Your task to perform on an android device: toggle notification dots Image 0: 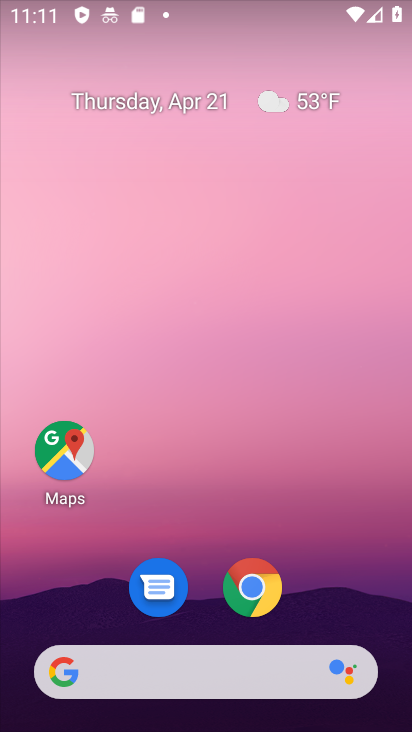
Step 0: drag from (221, 664) to (221, 117)
Your task to perform on an android device: toggle notification dots Image 1: 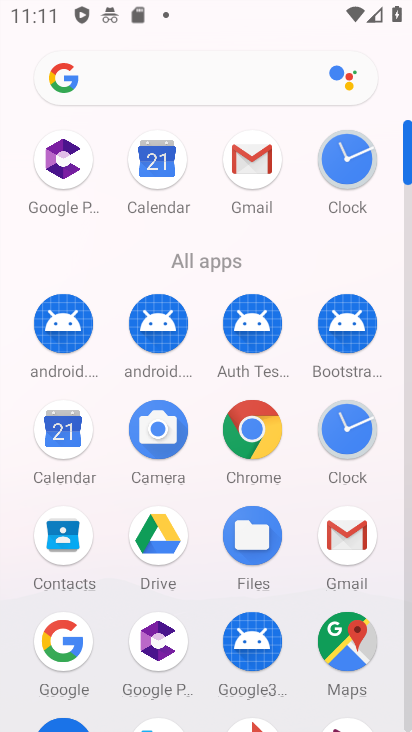
Step 1: drag from (209, 623) to (196, 286)
Your task to perform on an android device: toggle notification dots Image 2: 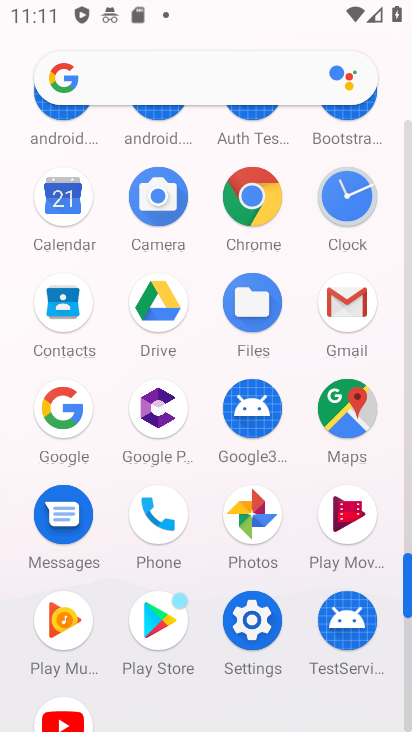
Step 2: click (248, 622)
Your task to perform on an android device: toggle notification dots Image 3: 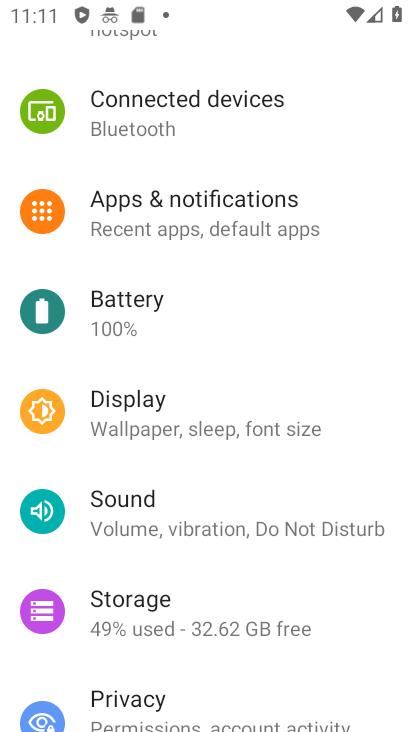
Step 3: click (195, 207)
Your task to perform on an android device: toggle notification dots Image 4: 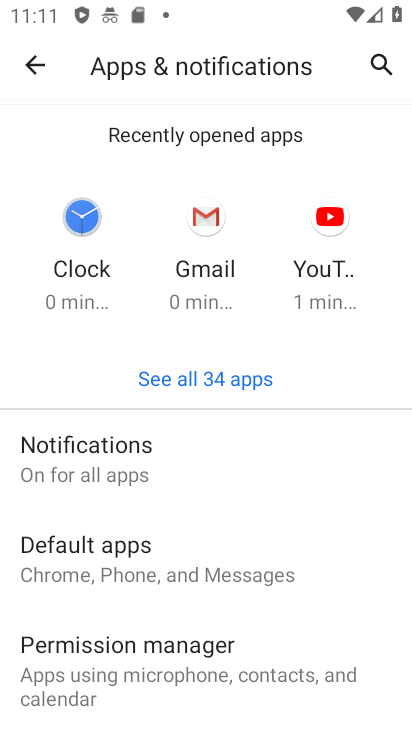
Step 4: click (90, 462)
Your task to perform on an android device: toggle notification dots Image 5: 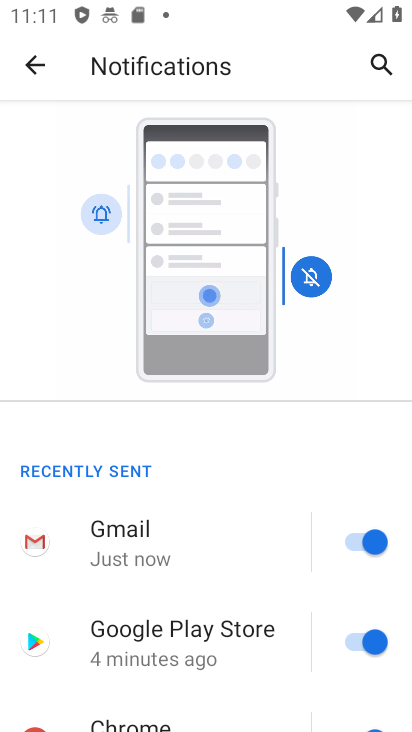
Step 5: drag from (237, 695) to (212, 282)
Your task to perform on an android device: toggle notification dots Image 6: 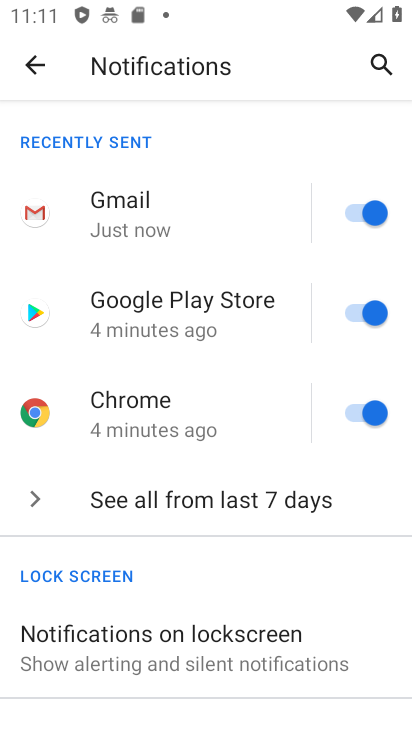
Step 6: drag from (233, 703) to (217, 289)
Your task to perform on an android device: toggle notification dots Image 7: 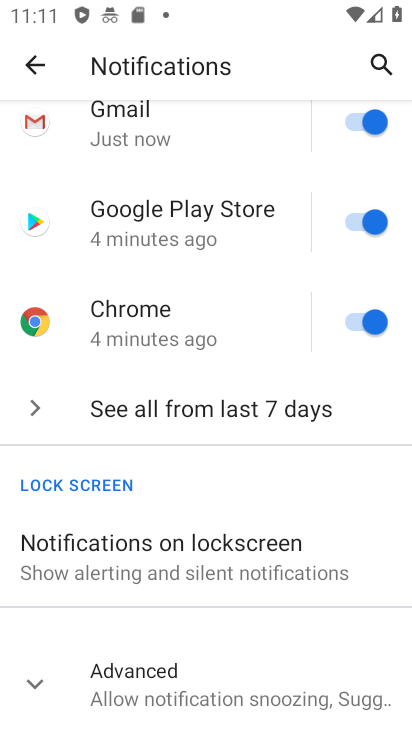
Step 7: drag from (247, 651) to (222, 239)
Your task to perform on an android device: toggle notification dots Image 8: 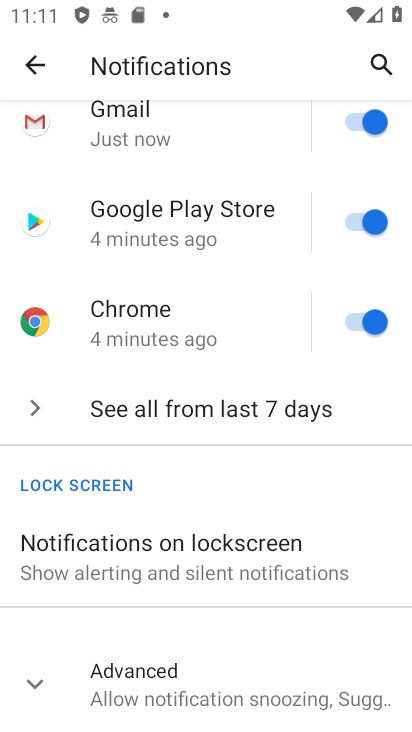
Step 8: click (137, 662)
Your task to perform on an android device: toggle notification dots Image 9: 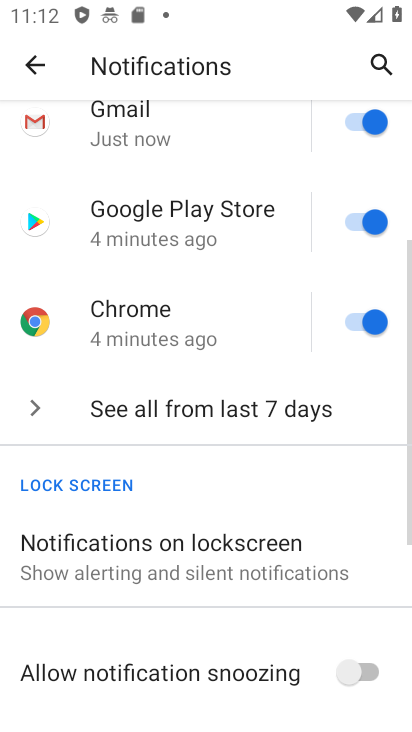
Step 9: drag from (245, 648) to (239, 347)
Your task to perform on an android device: toggle notification dots Image 10: 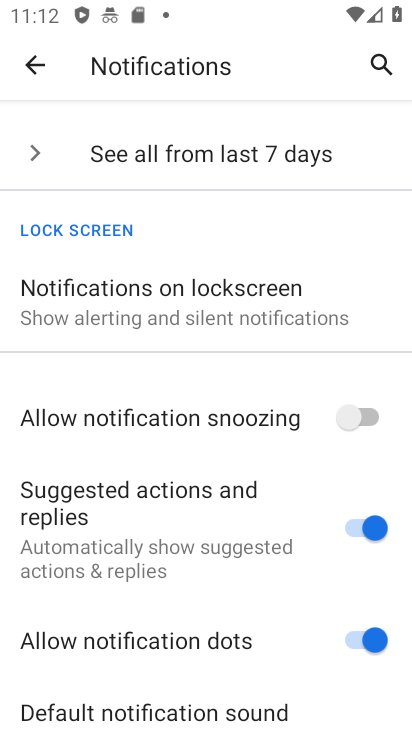
Step 10: click (350, 639)
Your task to perform on an android device: toggle notification dots Image 11: 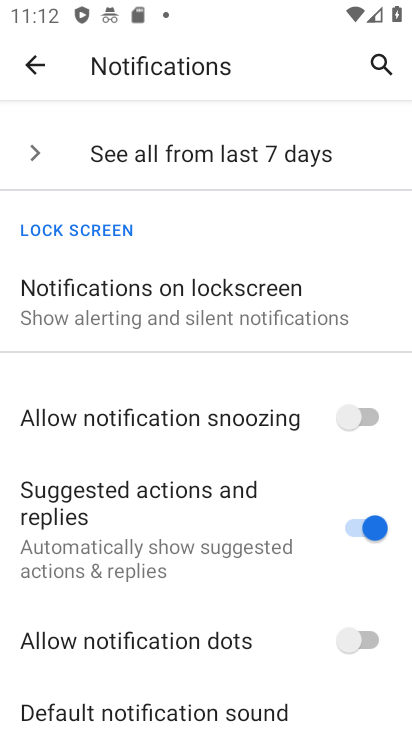
Step 11: task complete